Your task to perform on an android device: change the clock style Image 0: 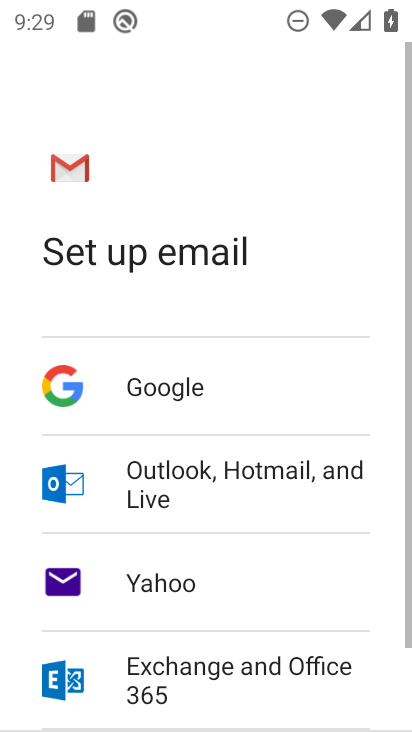
Step 0: press home button
Your task to perform on an android device: change the clock style Image 1: 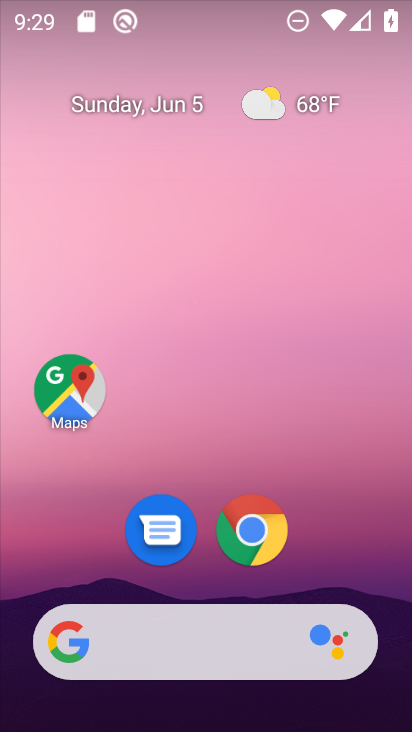
Step 1: drag from (397, 634) to (370, 68)
Your task to perform on an android device: change the clock style Image 2: 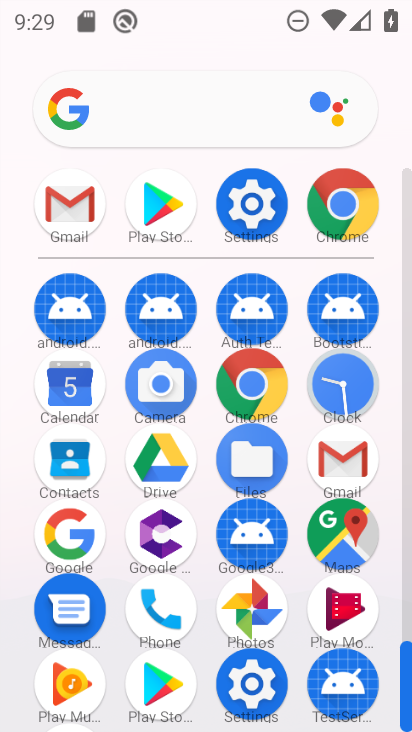
Step 2: click (344, 382)
Your task to perform on an android device: change the clock style Image 3: 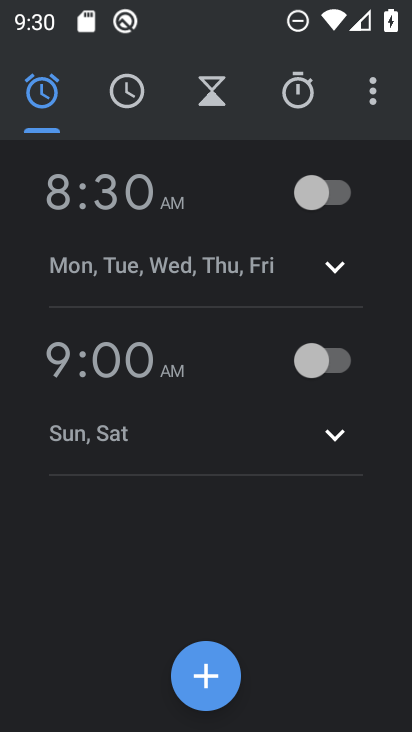
Step 3: click (380, 107)
Your task to perform on an android device: change the clock style Image 4: 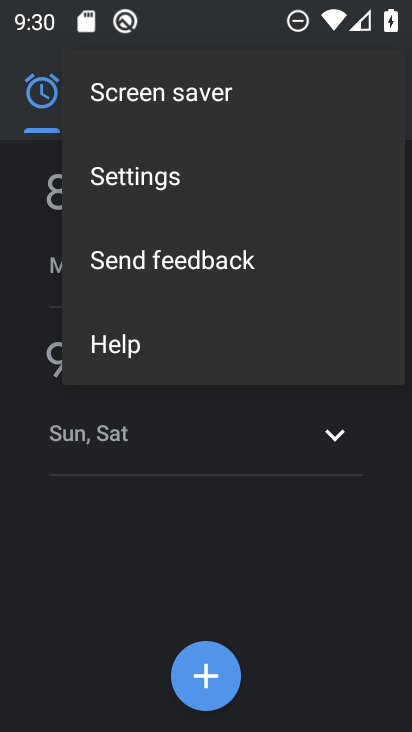
Step 4: click (147, 191)
Your task to perform on an android device: change the clock style Image 5: 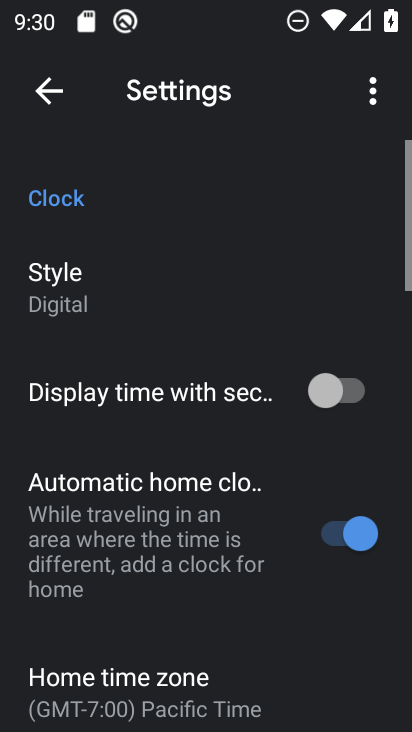
Step 5: click (66, 292)
Your task to perform on an android device: change the clock style Image 6: 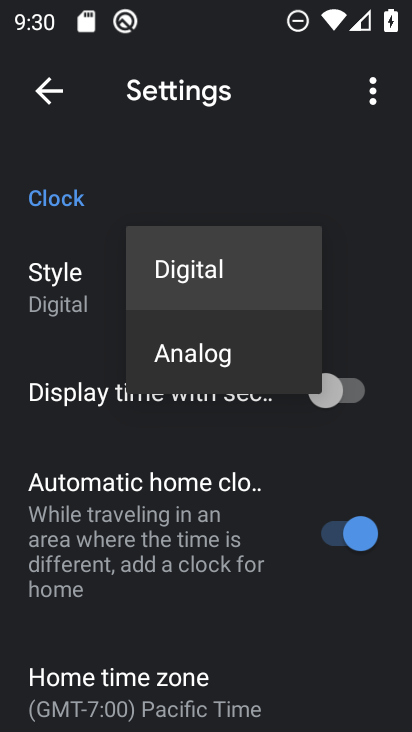
Step 6: click (193, 338)
Your task to perform on an android device: change the clock style Image 7: 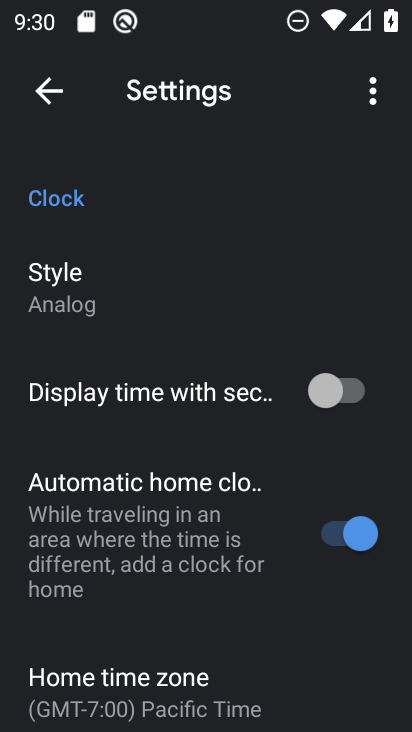
Step 7: task complete